Your task to perform on an android device: Search for sushi restaurants on Maps Image 0: 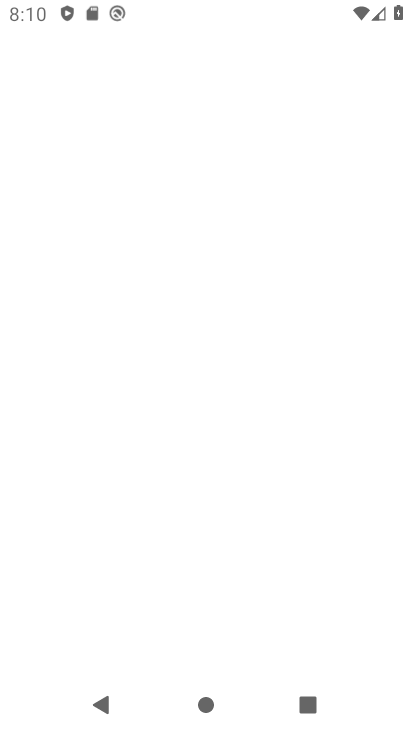
Step 0: press home button
Your task to perform on an android device: Search for sushi restaurants on Maps Image 1: 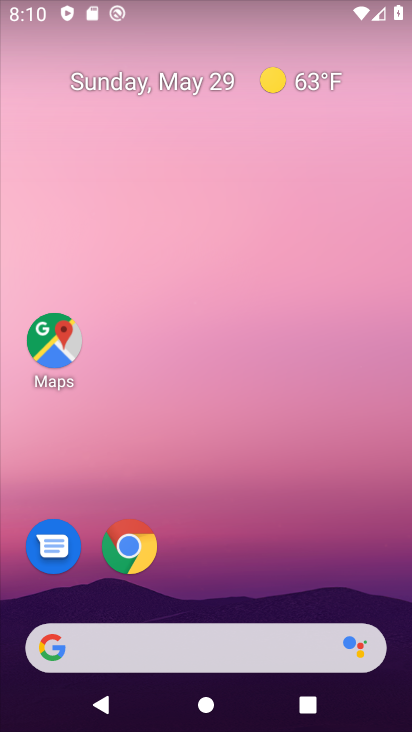
Step 1: click (41, 351)
Your task to perform on an android device: Search for sushi restaurants on Maps Image 2: 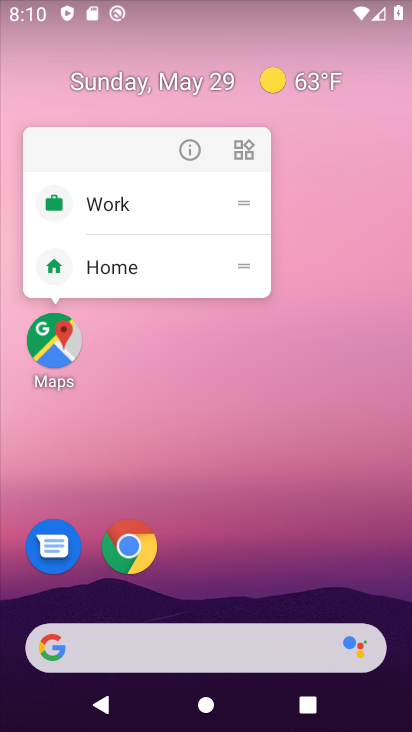
Step 2: click (53, 349)
Your task to perform on an android device: Search for sushi restaurants on Maps Image 3: 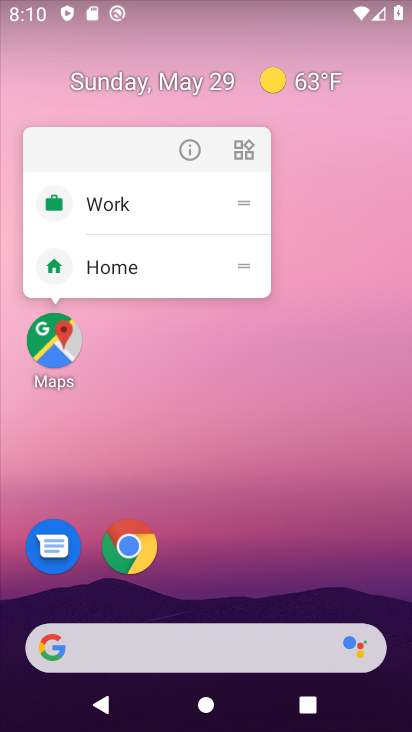
Step 3: click (48, 346)
Your task to perform on an android device: Search for sushi restaurants on Maps Image 4: 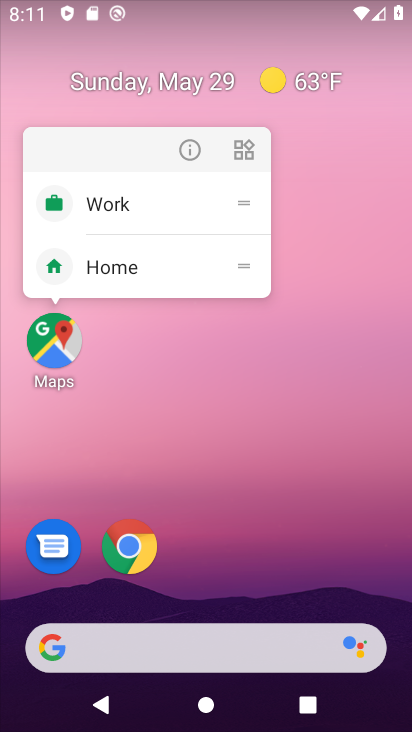
Step 4: click (57, 343)
Your task to perform on an android device: Search for sushi restaurants on Maps Image 5: 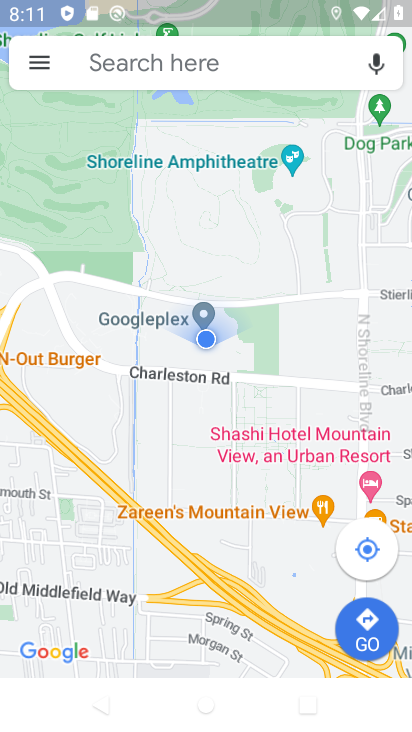
Step 5: click (193, 68)
Your task to perform on an android device: Search for sushi restaurants on Maps Image 6: 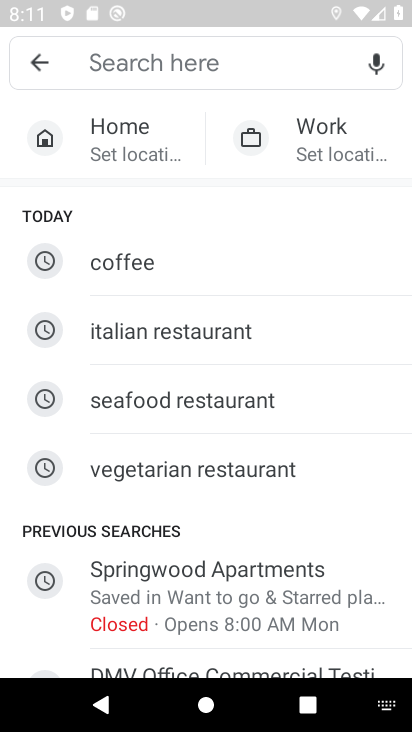
Step 6: type "sushi resaturants"
Your task to perform on an android device: Search for sushi restaurants on Maps Image 7: 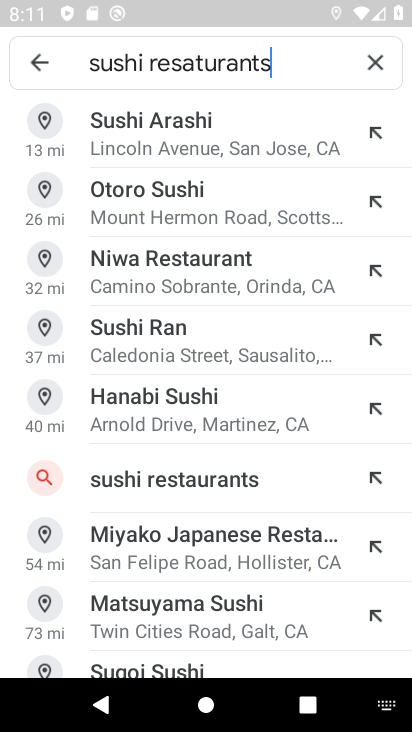
Step 7: click (221, 476)
Your task to perform on an android device: Search for sushi restaurants on Maps Image 8: 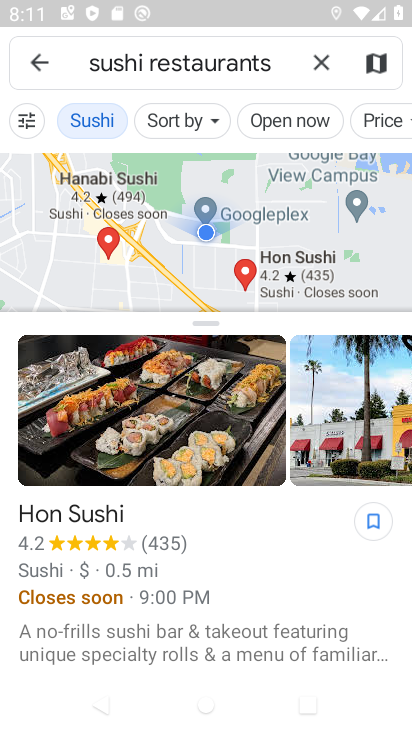
Step 8: task complete